Your task to perform on an android device: Open eBay Image 0: 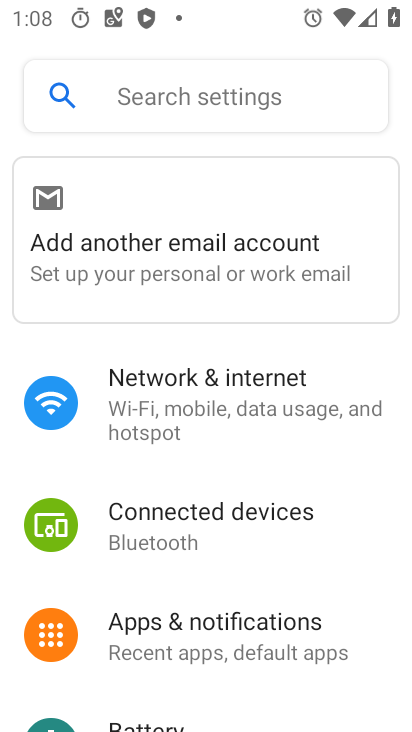
Step 0: press back button
Your task to perform on an android device: Open eBay Image 1: 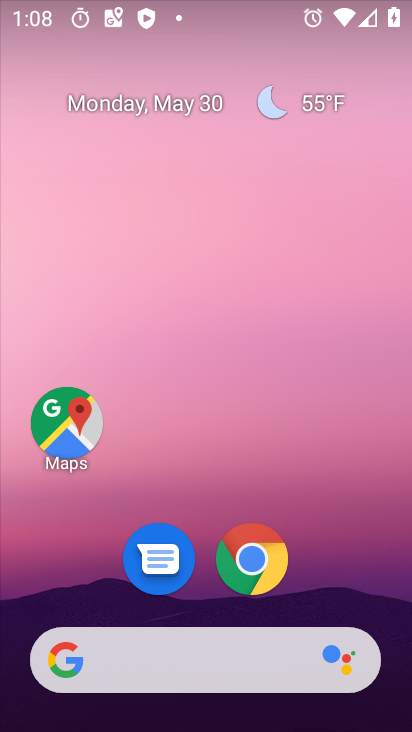
Step 1: click (253, 554)
Your task to perform on an android device: Open eBay Image 2: 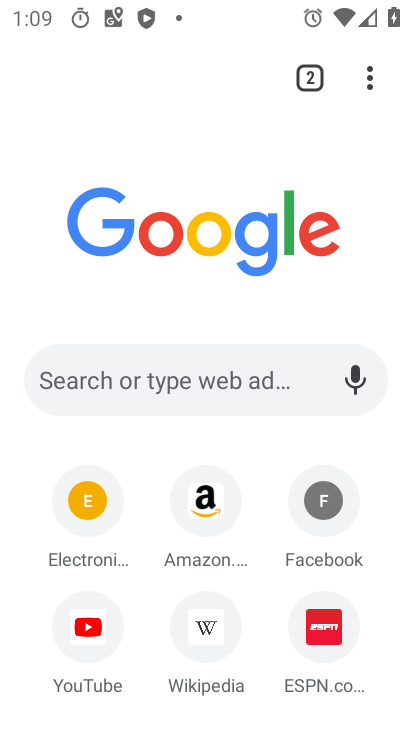
Step 2: drag from (189, 639) to (242, 281)
Your task to perform on an android device: Open eBay Image 3: 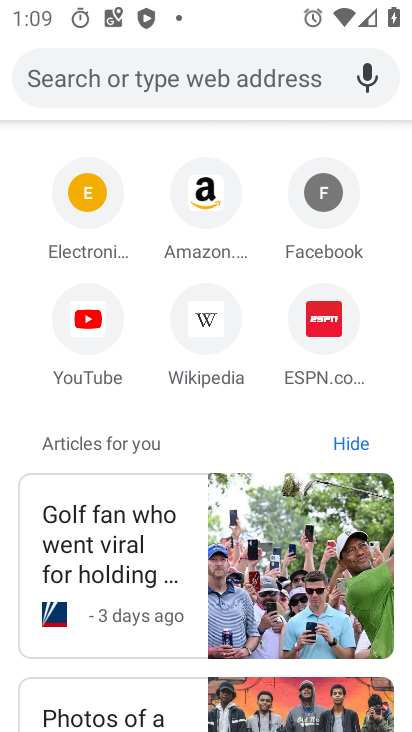
Step 3: click (112, 80)
Your task to perform on an android device: Open eBay Image 4: 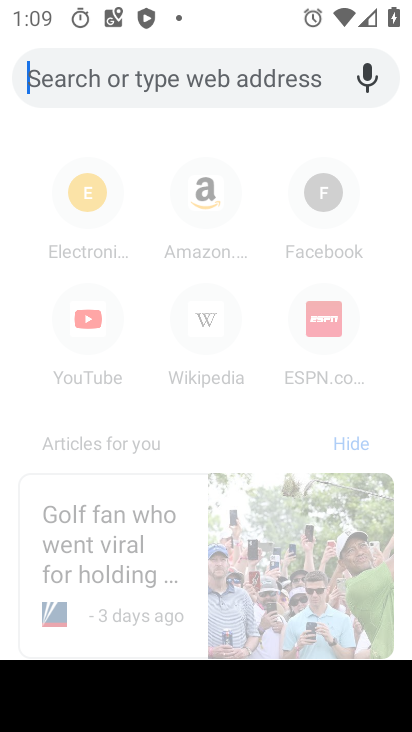
Step 4: type "ebay"
Your task to perform on an android device: Open eBay Image 5: 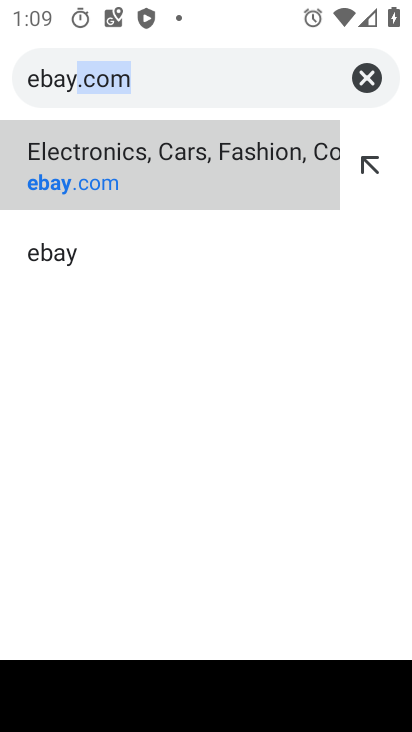
Step 5: click (195, 173)
Your task to perform on an android device: Open eBay Image 6: 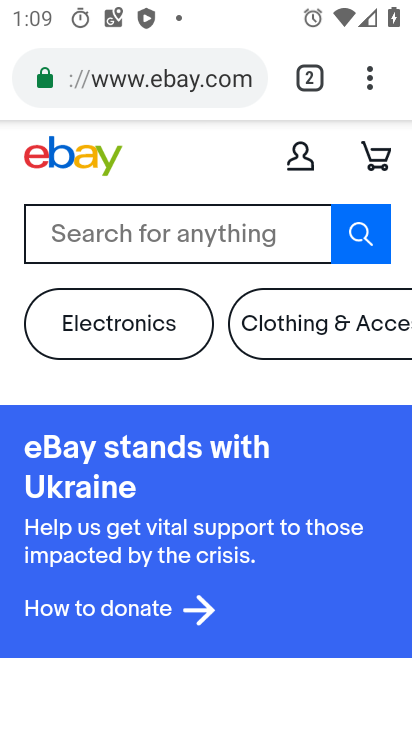
Step 6: task complete